Your task to perform on an android device: change alarm snooze length Image 0: 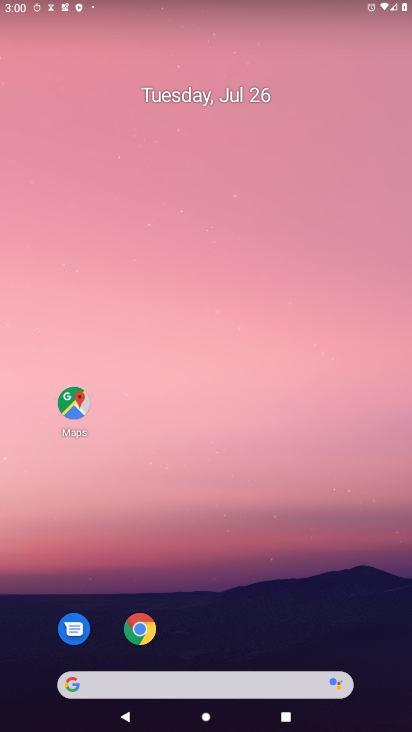
Step 0: drag from (274, 694) to (250, 0)
Your task to perform on an android device: change alarm snooze length Image 1: 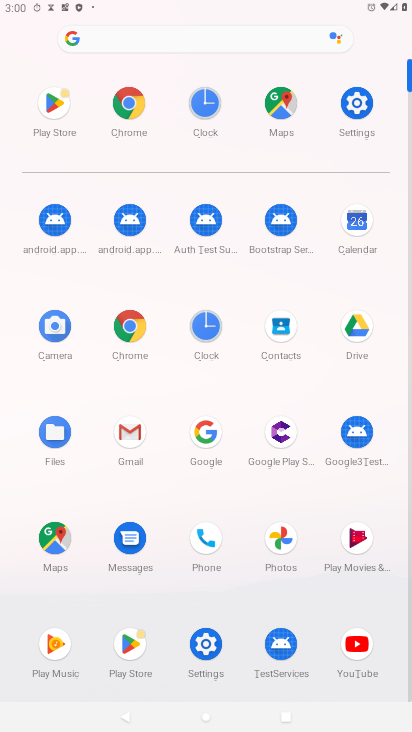
Step 1: click (201, 336)
Your task to perform on an android device: change alarm snooze length Image 2: 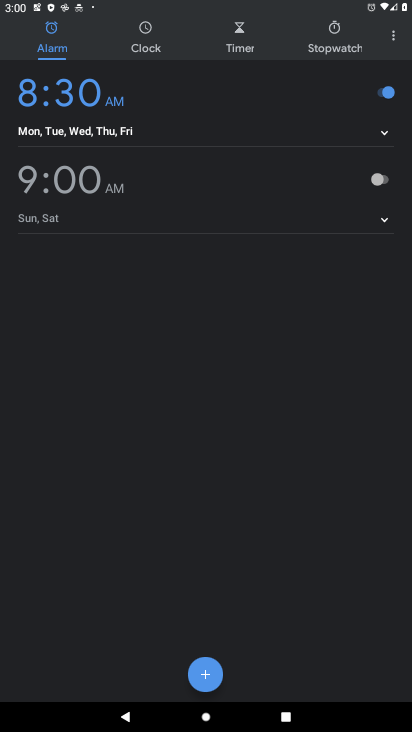
Step 2: click (398, 36)
Your task to perform on an android device: change alarm snooze length Image 3: 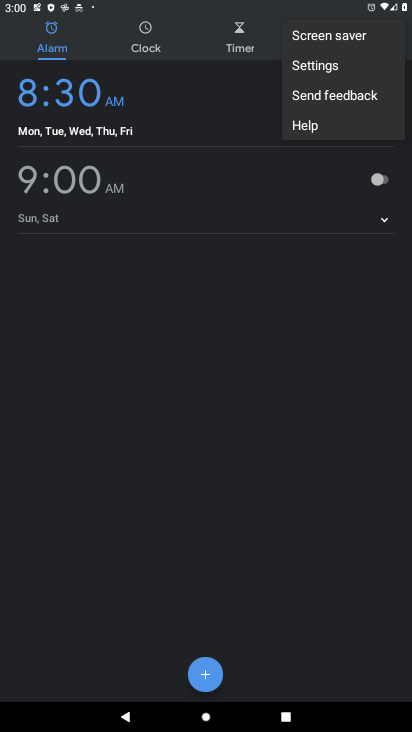
Step 3: click (326, 69)
Your task to perform on an android device: change alarm snooze length Image 4: 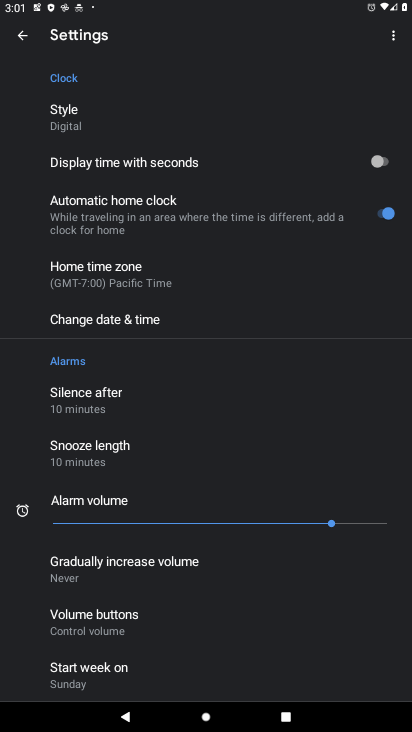
Step 4: click (129, 452)
Your task to perform on an android device: change alarm snooze length Image 5: 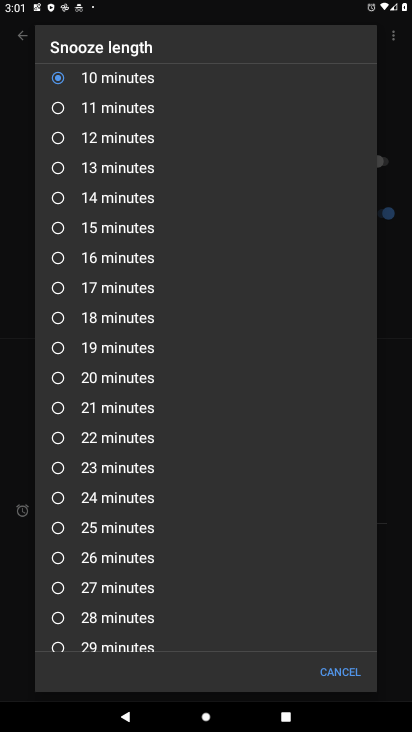
Step 5: click (67, 113)
Your task to perform on an android device: change alarm snooze length Image 6: 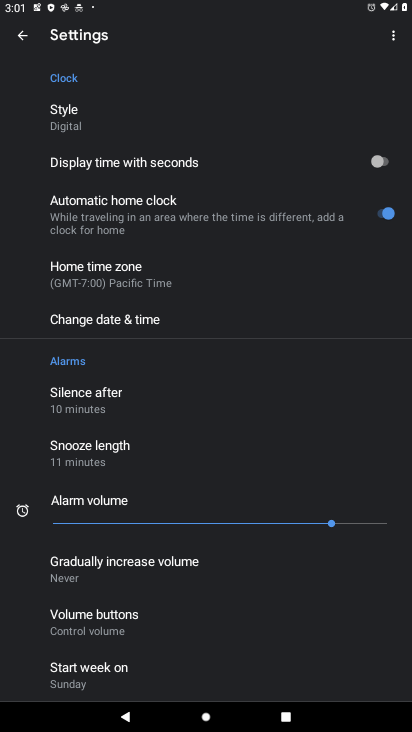
Step 6: task complete